Your task to perform on an android device: see creations saved in the google photos Image 0: 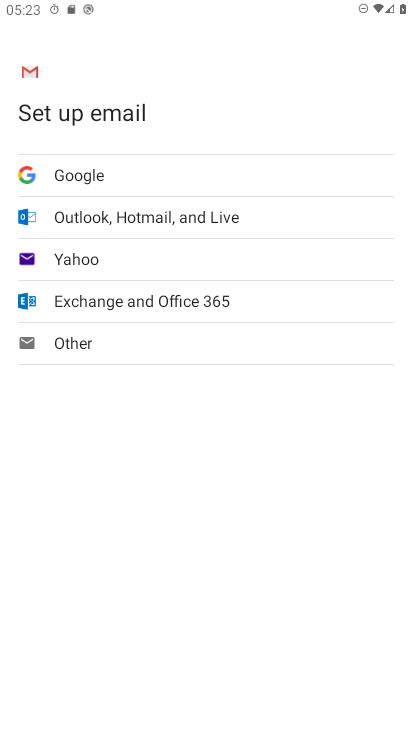
Step 0: press home button
Your task to perform on an android device: see creations saved in the google photos Image 1: 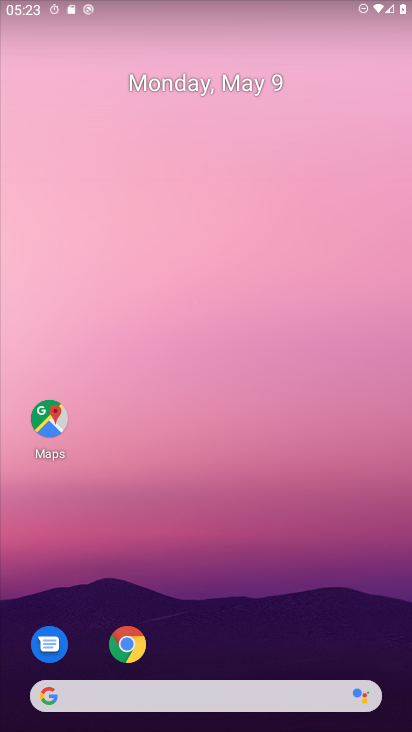
Step 1: drag from (233, 605) to (170, 80)
Your task to perform on an android device: see creations saved in the google photos Image 2: 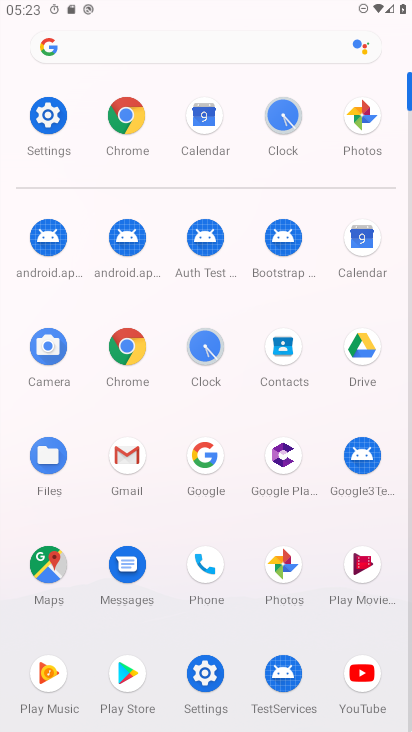
Step 2: click (360, 115)
Your task to perform on an android device: see creations saved in the google photos Image 3: 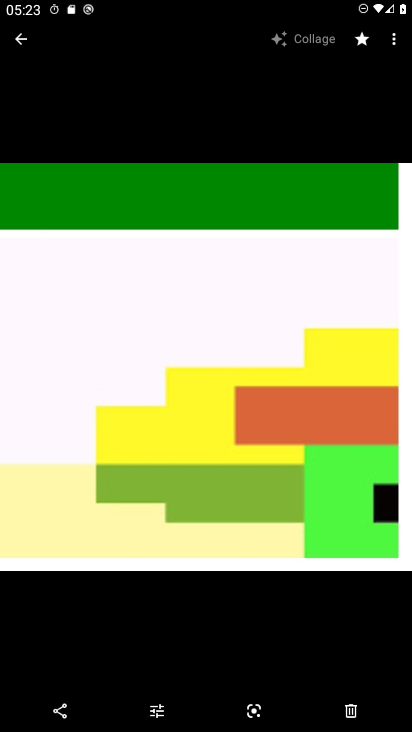
Step 3: press back button
Your task to perform on an android device: see creations saved in the google photos Image 4: 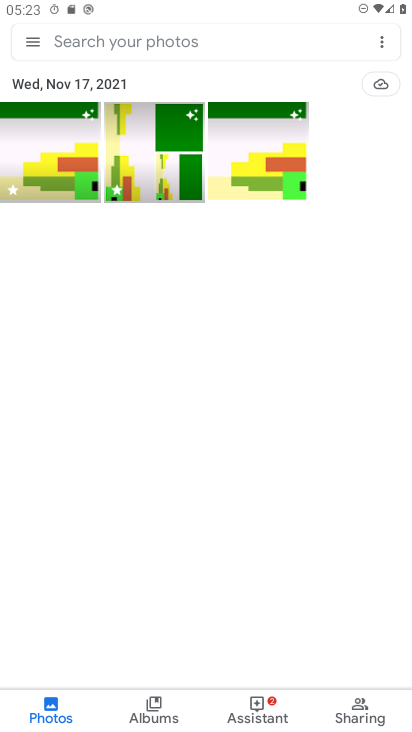
Step 4: click (176, 42)
Your task to perform on an android device: see creations saved in the google photos Image 5: 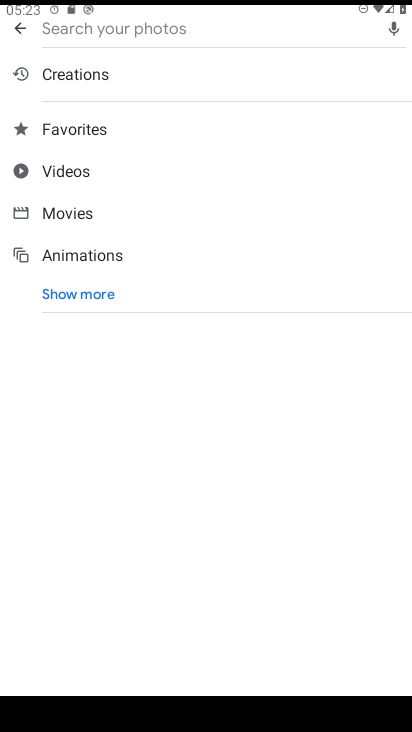
Step 5: click (71, 288)
Your task to perform on an android device: see creations saved in the google photos Image 6: 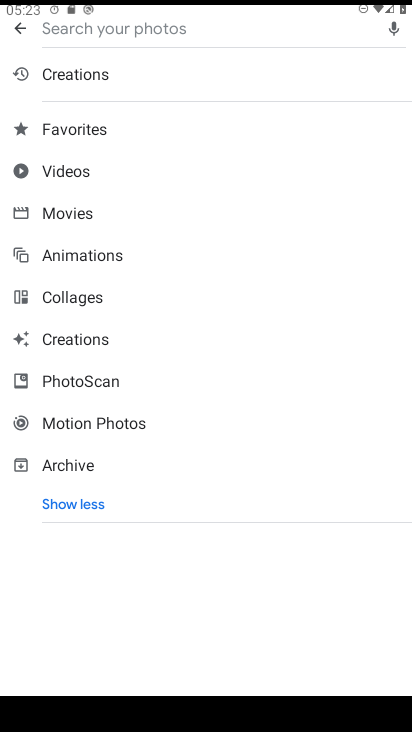
Step 6: click (57, 338)
Your task to perform on an android device: see creations saved in the google photos Image 7: 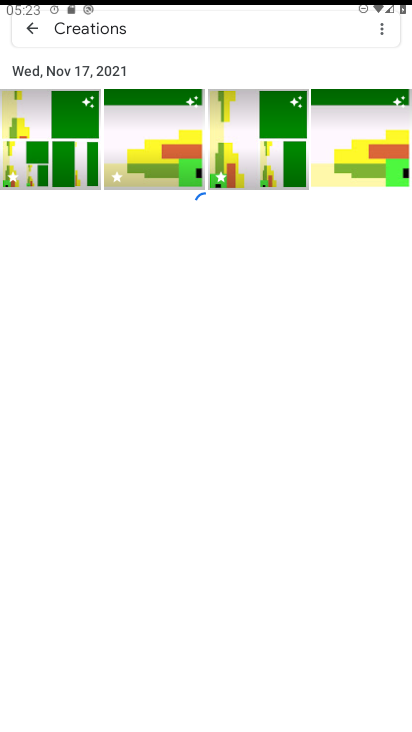
Step 7: task complete